Your task to perform on an android device: Go to Google maps Image 0: 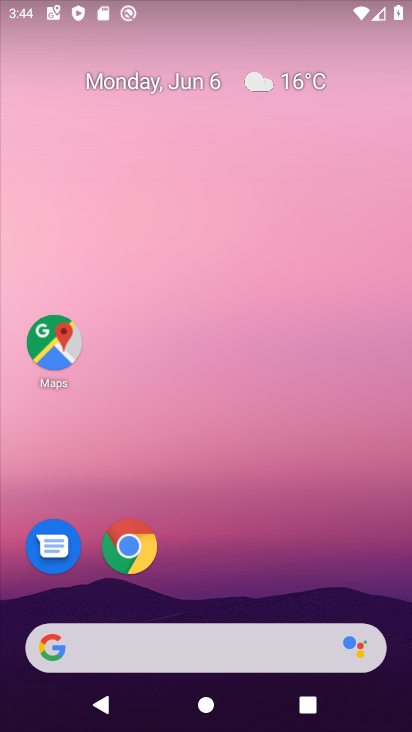
Step 0: drag from (320, 577) to (72, 2)
Your task to perform on an android device: Go to Google maps Image 1: 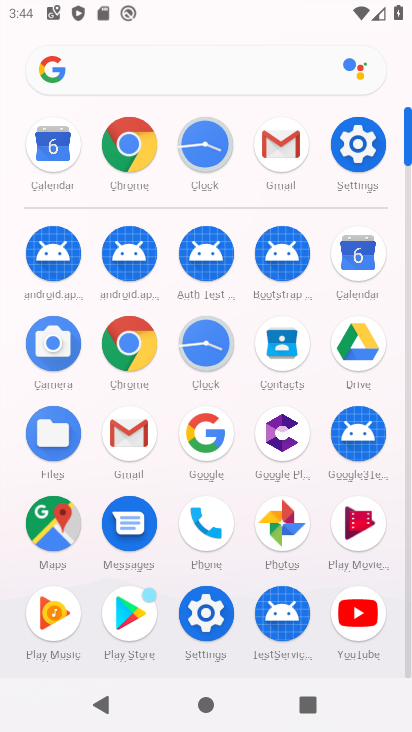
Step 1: click (62, 529)
Your task to perform on an android device: Go to Google maps Image 2: 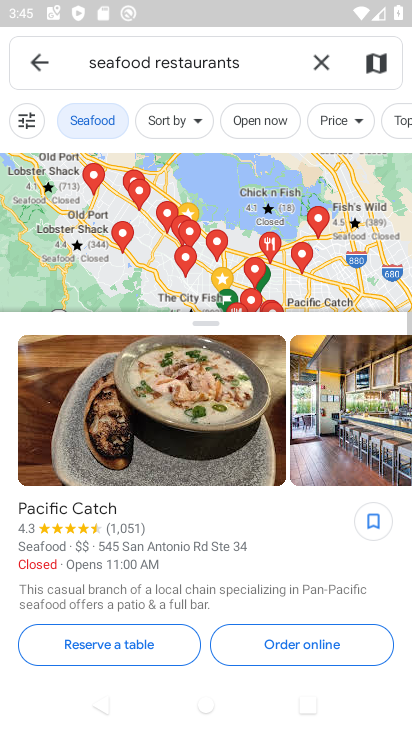
Step 2: task complete